Your task to perform on an android device: When is my next meeting? Image 0: 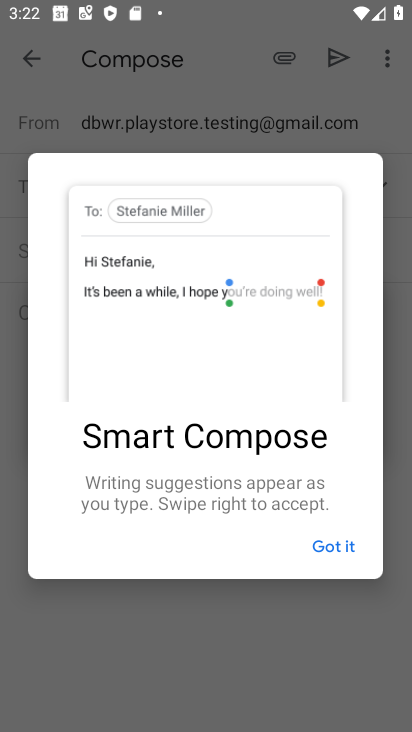
Step 0: press home button
Your task to perform on an android device: When is my next meeting? Image 1: 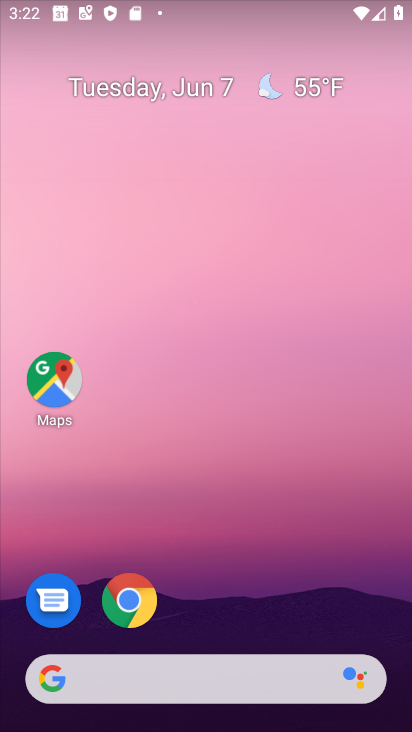
Step 1: drag from (202, 635) to (277, 9)
Your task to perform on an android device: When is my next meeting? Image 2: 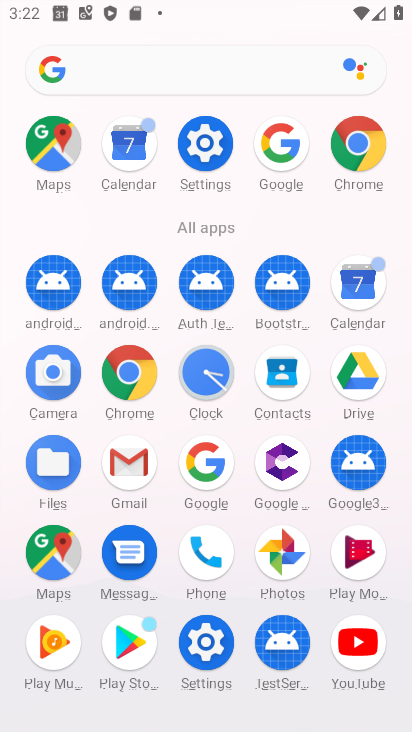
Step 2: click (366, 296)
Your task to perform on an android device: When is my next meeting? Image 3: 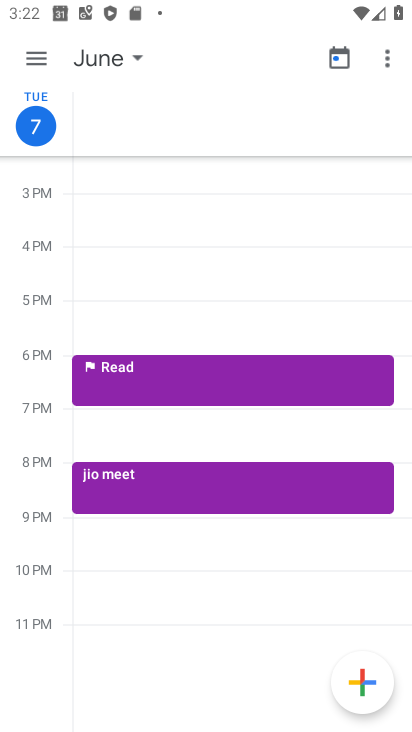
Step 3: task complete